Your task to perform on an android device: toggle location history Image 0: 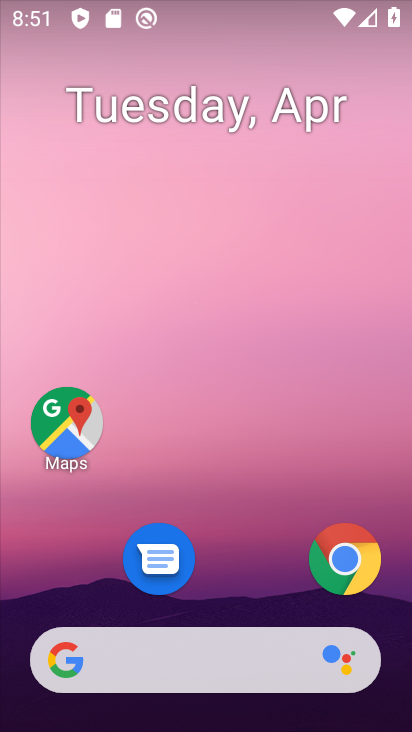
Step 0: drag from (216, 708) to (216, 252)
Your task to perform on an android device: toggle location history Image 1: 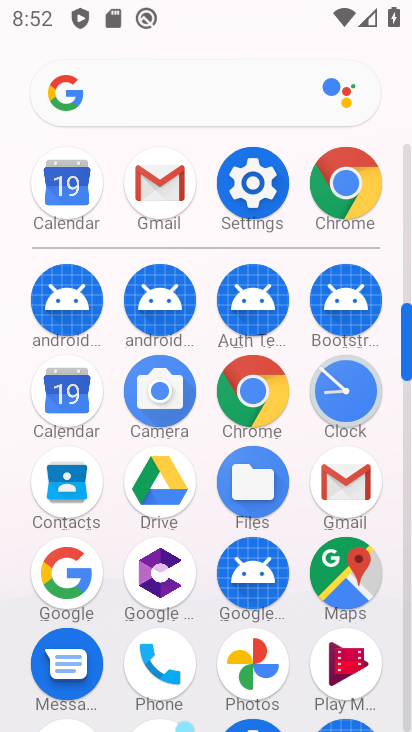
Step 1: click (254, 205)
Your task to perform on an android device: toggle location history Image 2: 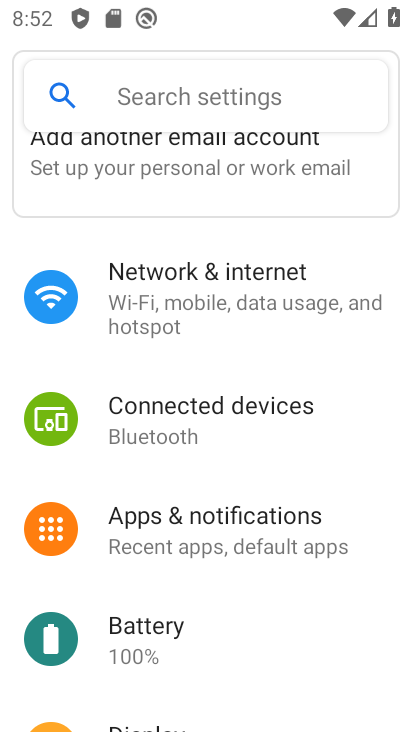
Step 2: click (165, 90)
Your task to perform on an android device: toggle location history Image 3: 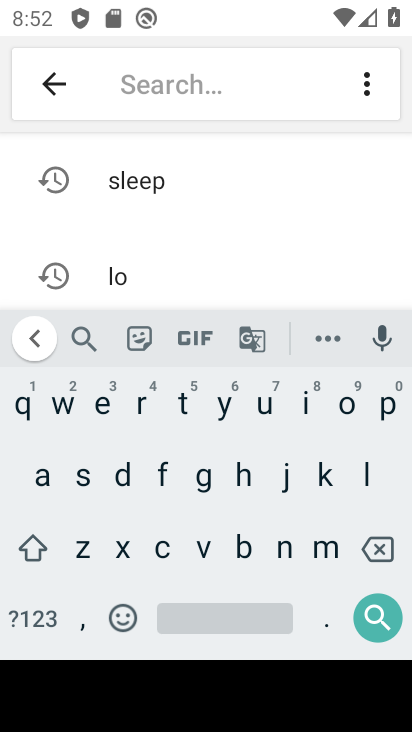
Step 3: click (136, 283)
Your task to perform on an android device: toggle location history Image 4: 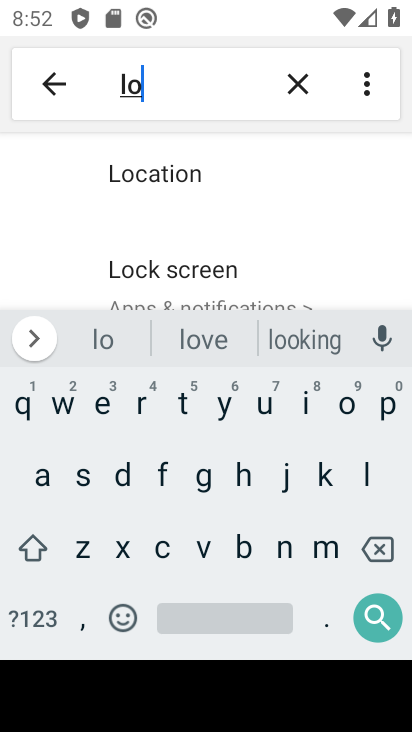
Step 4: drag from (193, 271) to (198, 177)
Your task to perform on an android device: toggle location history Image 5: 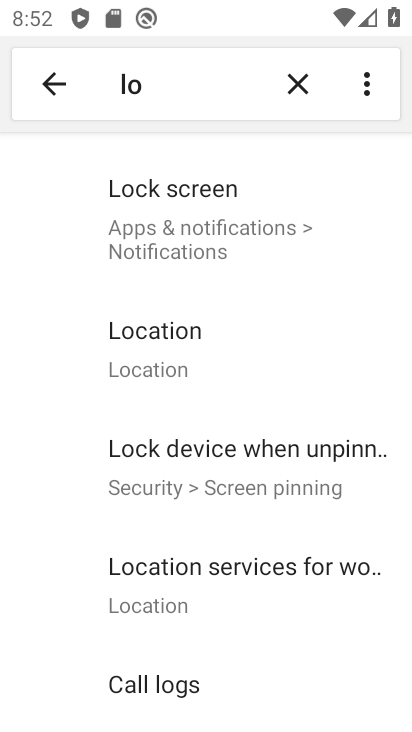
Step 5: click (173, 347)
Your task to perform on an android device: toggle location history Image 6: 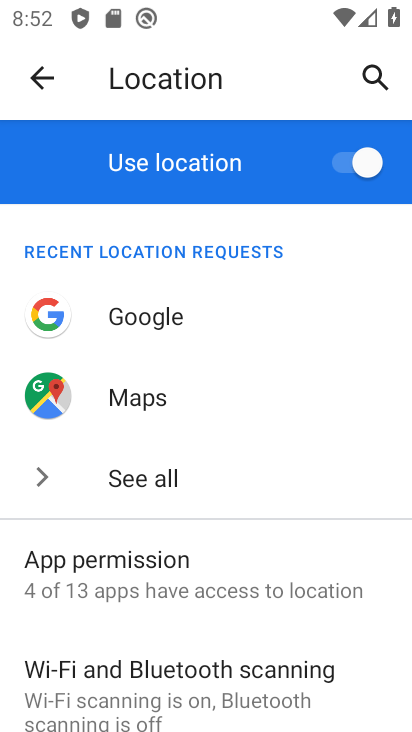
Step 6: drag from (143, 581) to (186, 149)
Your task to perform on an android device: toggle location history Image 7: 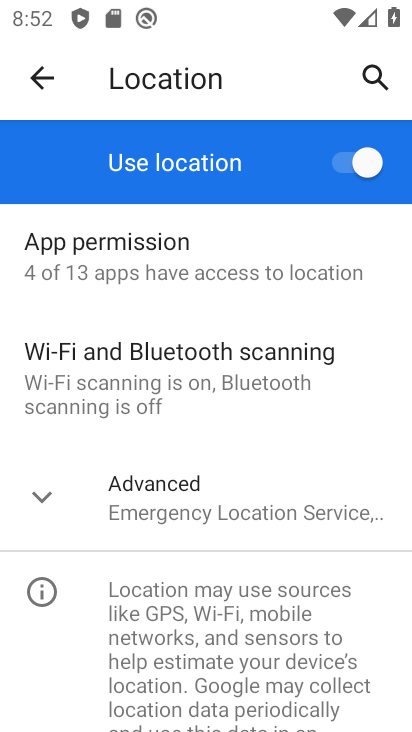
Step 7: click (45, 506)
Your task to perform on an android device: toggle location history Image 8: 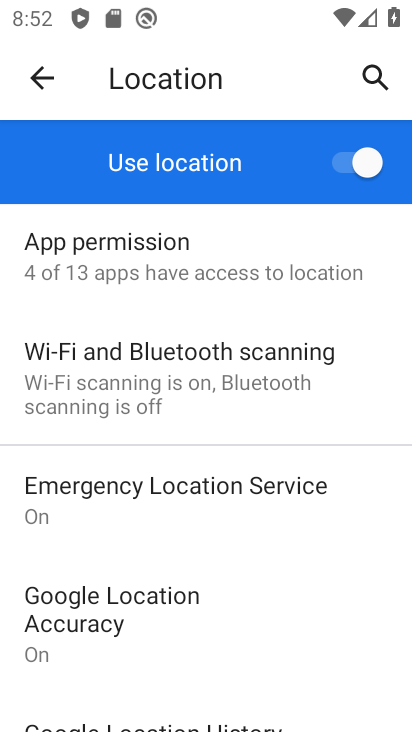
Step 8: drag from (140, 616) to (127, 485)
Your task to perform on an android device: toggle location history Image 9: 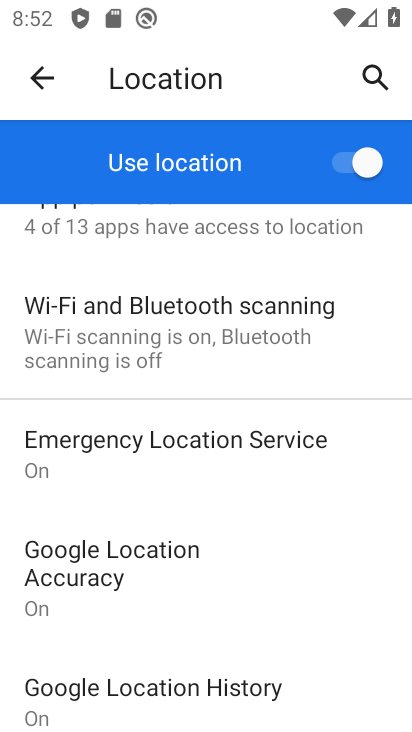
Step 9: click (93, 688)
Your task to perform on an android device: toggle location history Image 10: 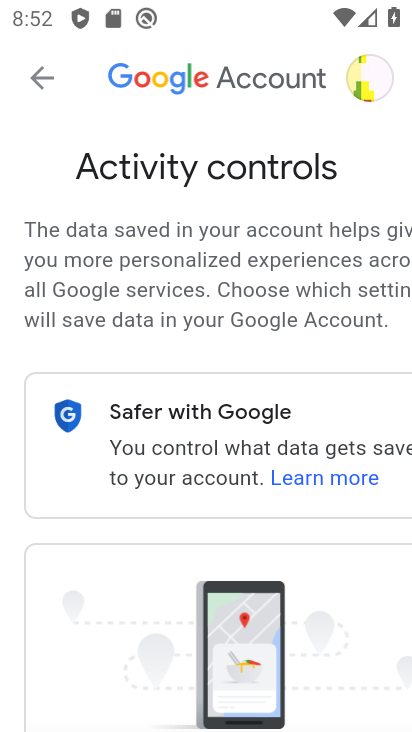
Step 10: task complete